Your task to perform on an android device: change notification settings in the gmail app Image 0: 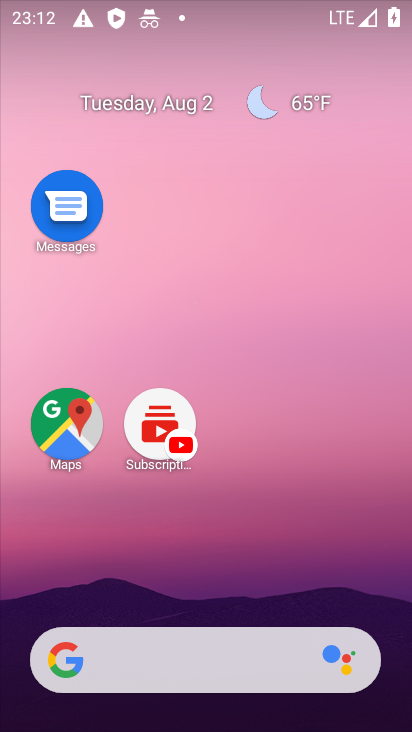
Step 0: drag from (229, 629) to (158, 195)
Your task to perform on an android device: change notification settings in the gmail app Image 1: 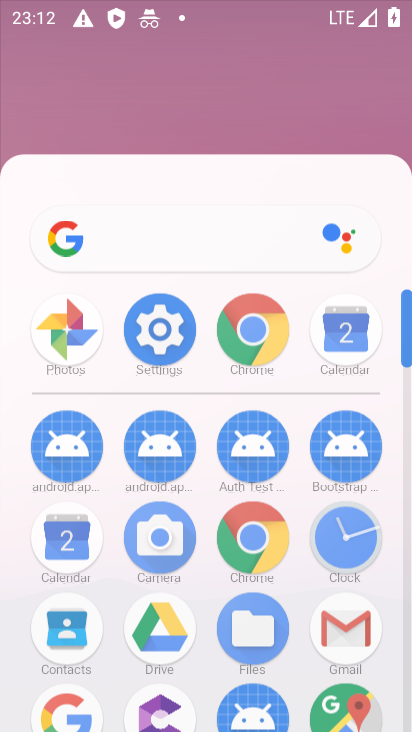
Step 1: drag from (222, 615) to (222, 332)
Your task to perform on an android device: change notification settings in the gmail app Image 2: 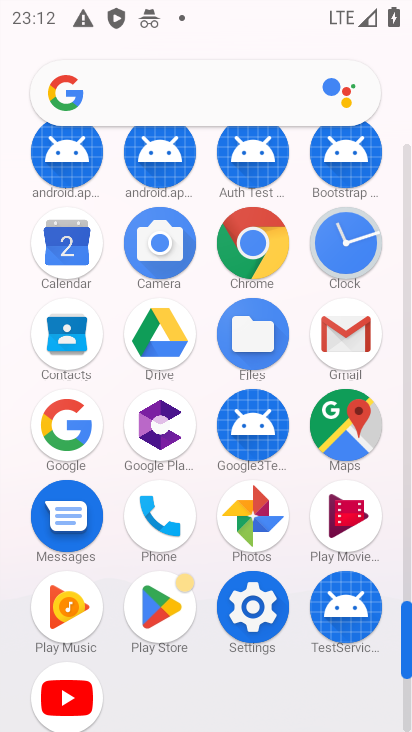
Step 2: click (353, 324)
Your task to perform on an android device: change notification settings in the gmail app Image 3: 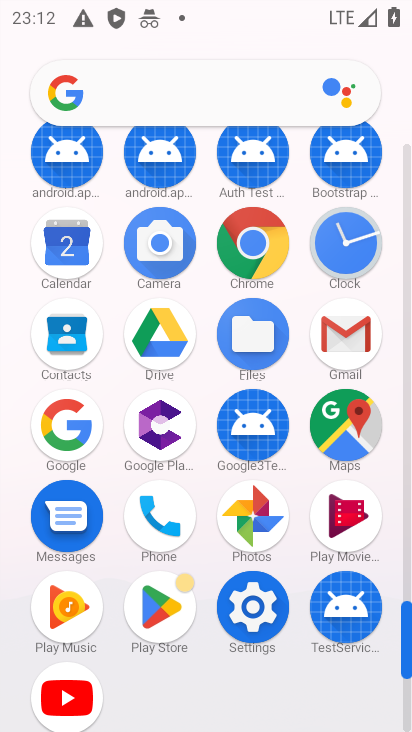
Step 3: click (353, 331)
Your task to perform on an android device: change notification settings in the gmail app Image 4: 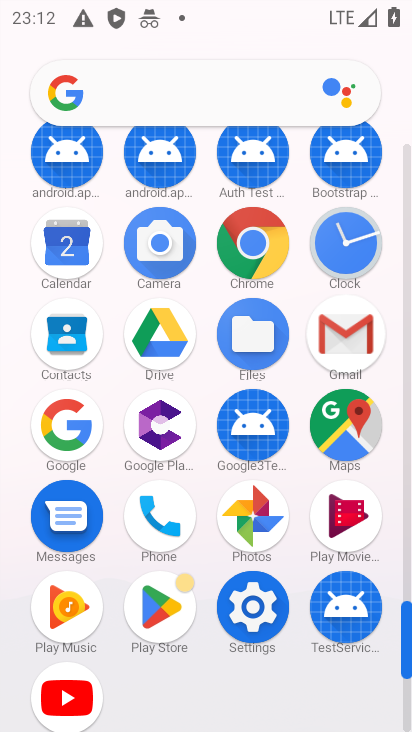
Step 4: click (354, 331)
Your task to perform on an android device: change notification settings in the gmail app Image 5: 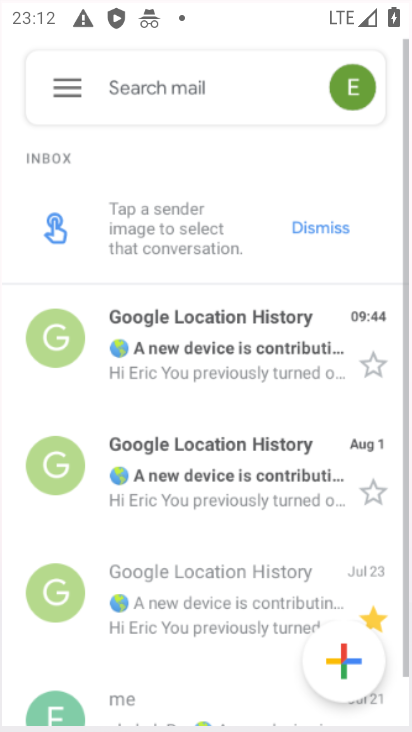
Step 5: click (350, 332)
Your task to perform on an android device: change notification settings in the gmail app Image 6: 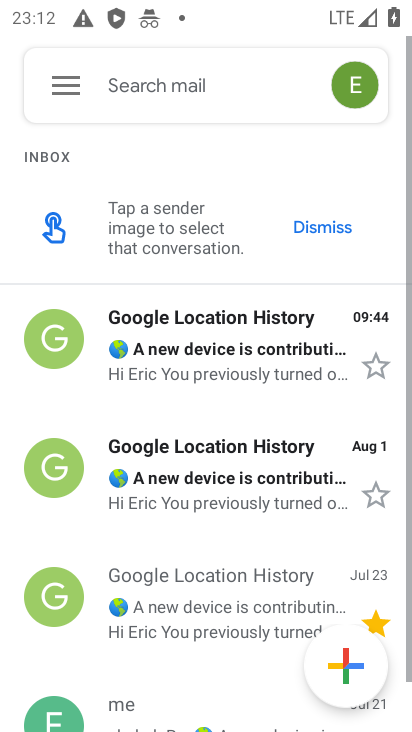
Step 6: click (350, 331)
Your task to perform on an android device: change notification settings in the gmail app Image 7: 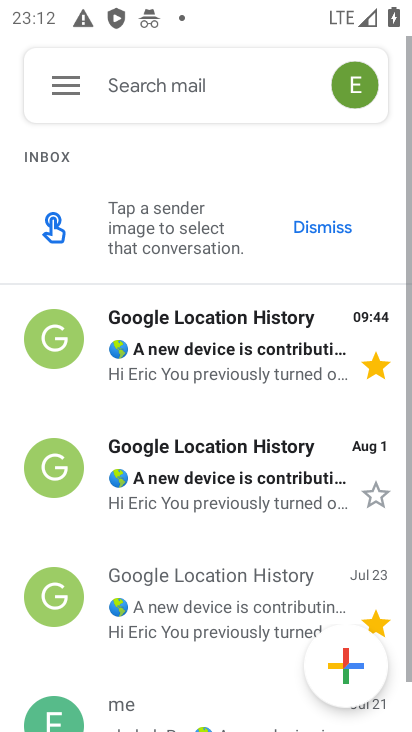
Step 7: click (56, 105)
Your task to perform on an android device: change notification settings in the gmail app Image 8: 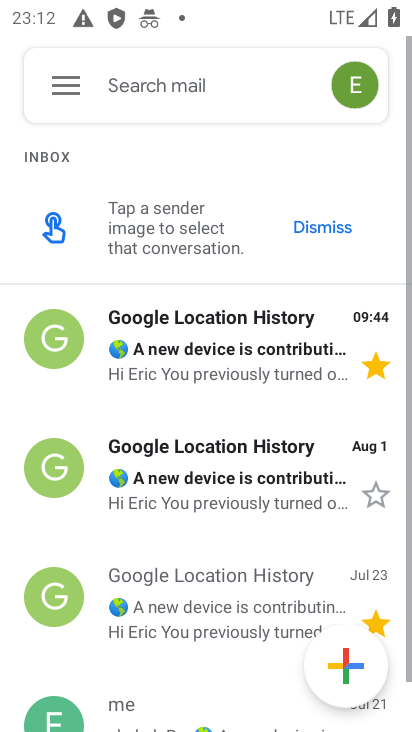
Step 8: click (57, 104)
Your task to perform on an android device: change notification settings in the gmail app Image 9: 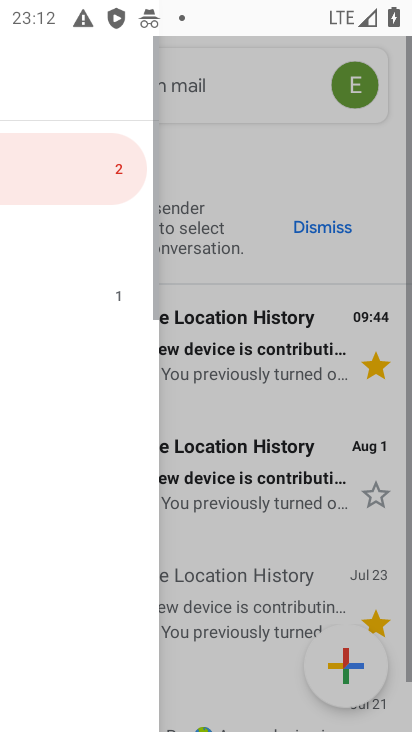
Step 9: drag from (57, 102) to (307, 457)
Your task to perform on an android device: change notification settings in the gmail app Image 10: 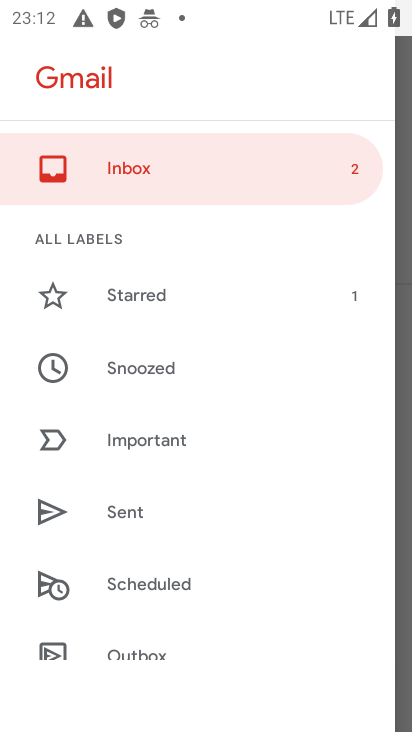
Step 10: drag from (65, 85) to (204, 108)
Your task to perform on an android device: change notification settings in the gmail app Image 11: 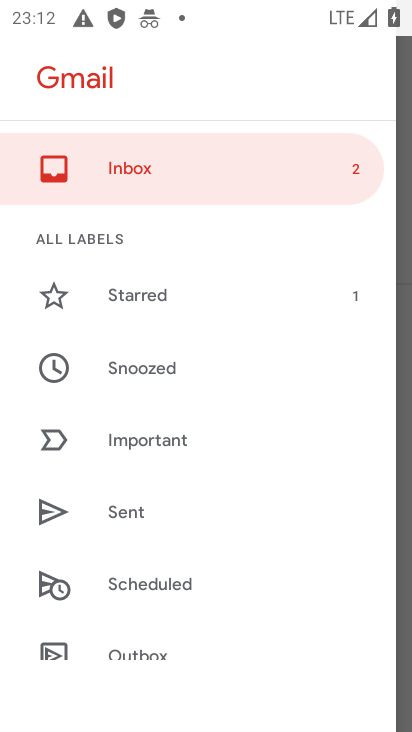
Step 11: drag from (85, 204) to (160, 296)
Your task to perform on an android device: change notification settings in the gmail app Image 12: 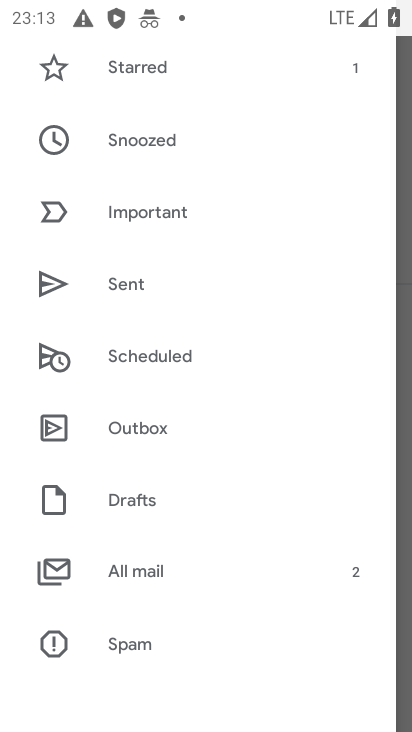
Step 12: drag from (179, 450) to (80, 110)
Your task to perform on an android device: change notification settings in the gmail app Image 13: 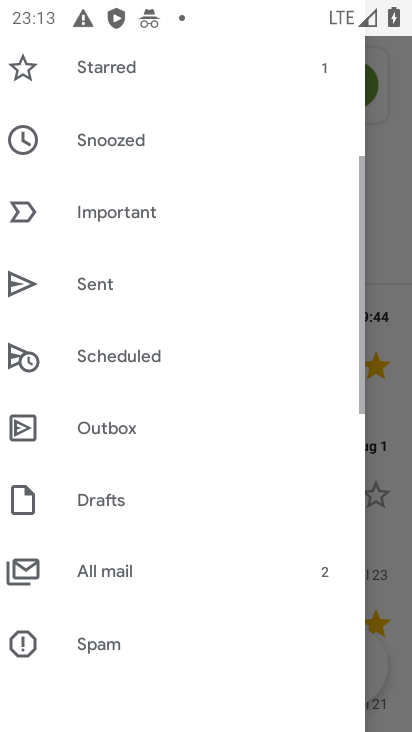
Step 13: drag from (154, 405) to (144, 59)
Your task to perform on an android device: change notification settings in the gmail app Image 14: 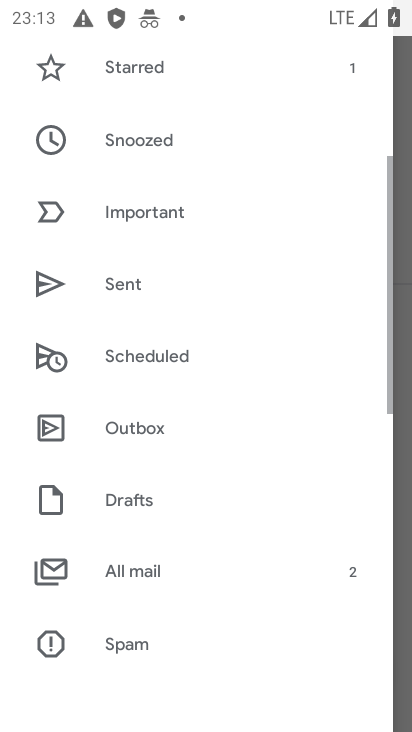
Step 14: drag from (162, 400) to (156, 63)
Your task to perform on an android device: change notification settings in the gmail app Image 15: 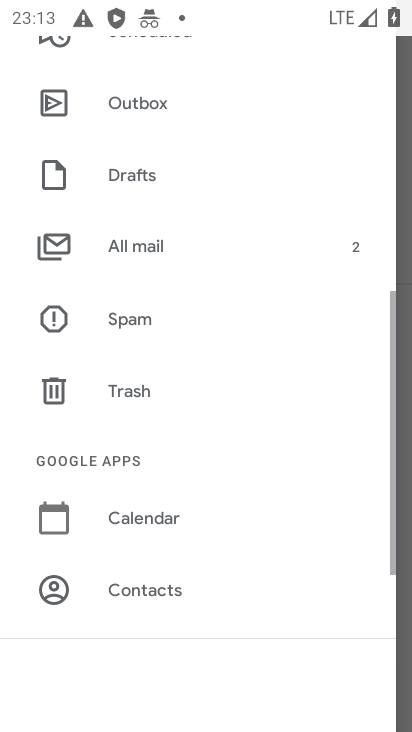
Step 15: drag from (163, 448) to (149, 88)
Your task to perform on an android device: change notification settings in the gmail app Image 16: 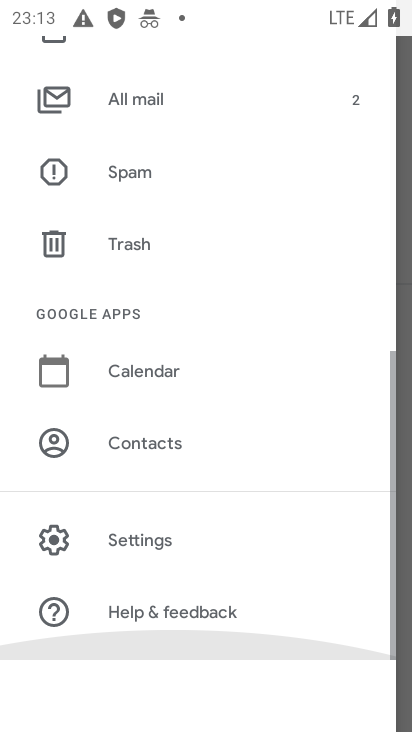
Step 16: drag from (160, 538) to (130, 90)
Your task to perform on an android device: change notification settings in the gmail app Image 17: 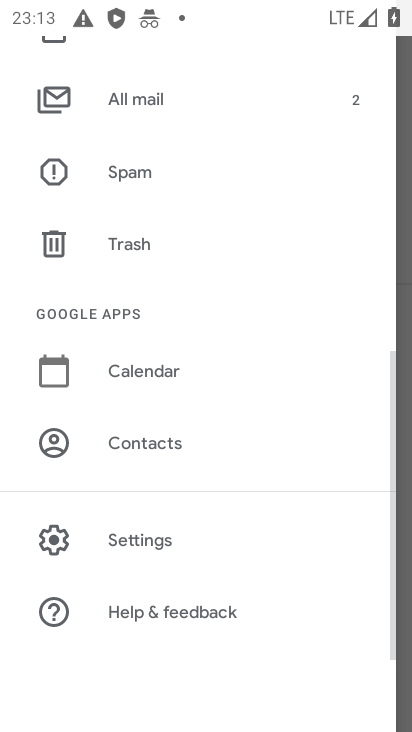
Step 17: click (140, 530)
Your task to perform on an android device: change notification settings in the gmail app Image 18: 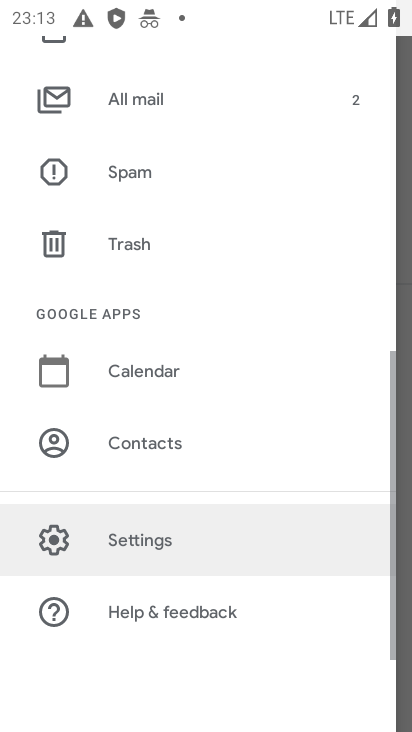
Step 18: click (137, 531)
Your task to perform on an android device: change notification settings in the gmail app Image 19: 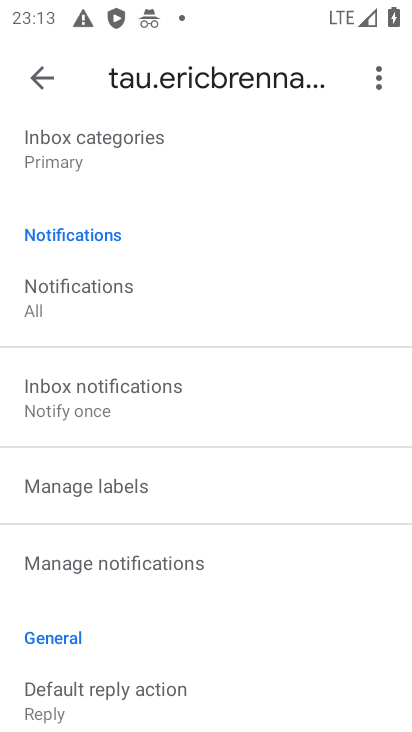
Step 19: click (60, 300)
Your task to perform on an android device: change notification settings in the gmail app Image 20: 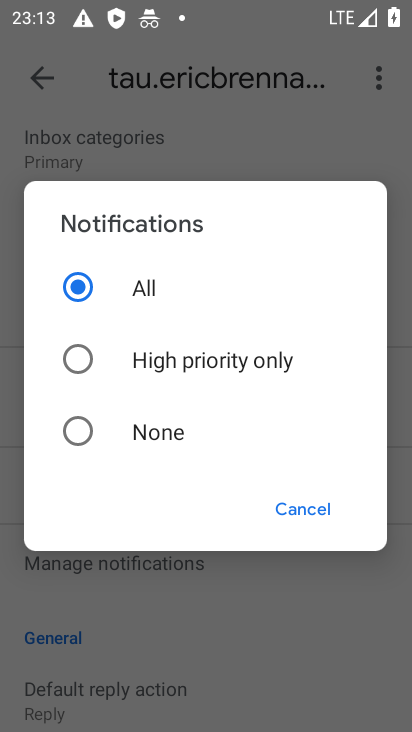
Step 20: click (68, 359)
Your task to perform on an android device: change notification settings in the gmail app Image 21: 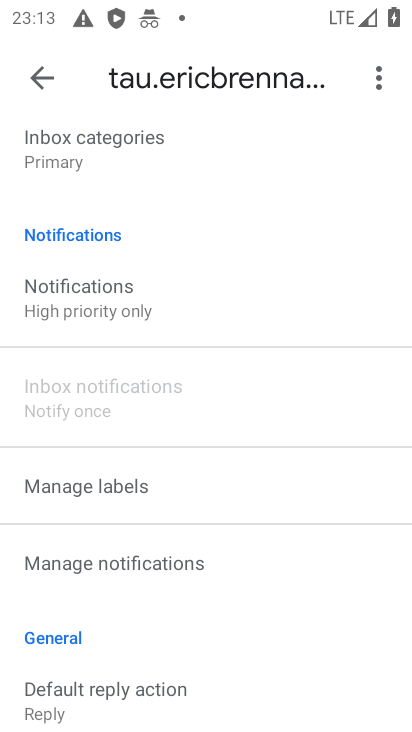
Step 21: task complete